Your task to perform on an android device: Go to sound settings Image 0: 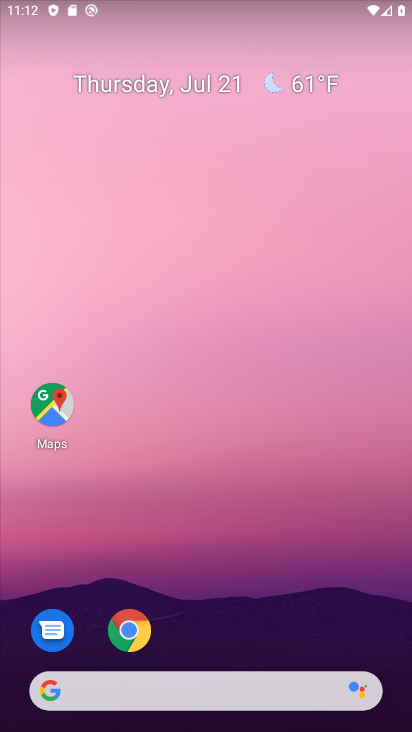
Step 0: drag from (216, 672) to (227, 207)
Your task to perform on an android device: Go to sound settings Image 1: 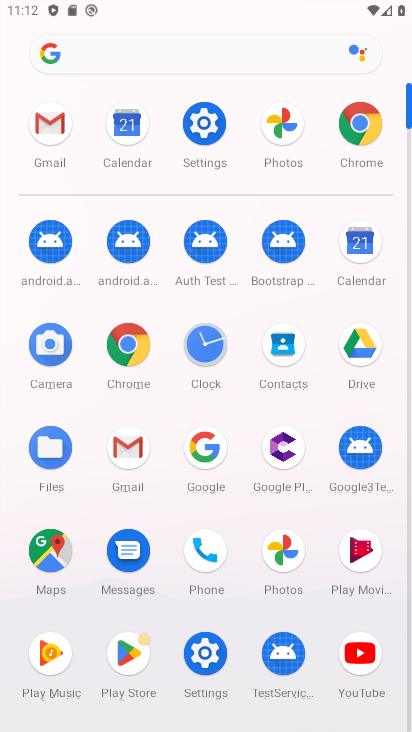
Step 1: click (210, 121)
Your task to perform on an android device: Go to sound settings Image 2: 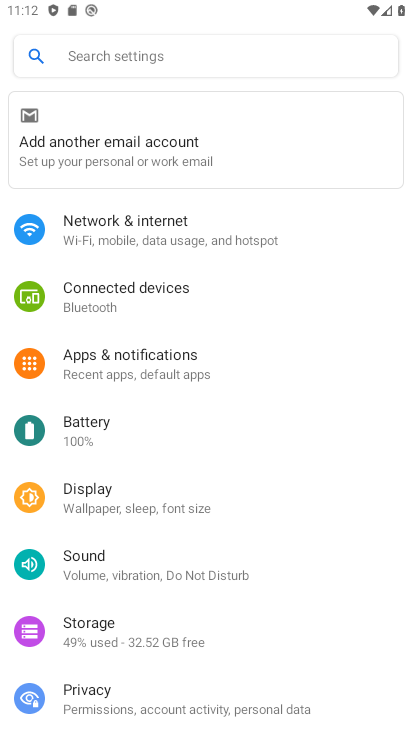
Step 2: drag from (125, 699) to (117, 335)
Your task to perform on an android device: Go to sound settings Image 3: 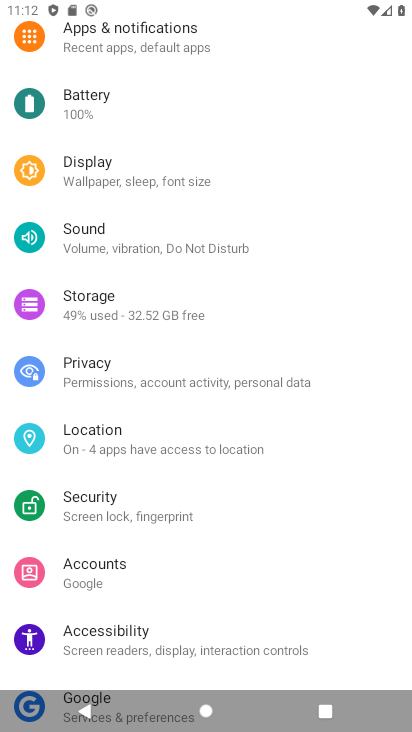
Step 3: click (89, 230)
Your task to perform on an android device: Go to sound settings Image 4: 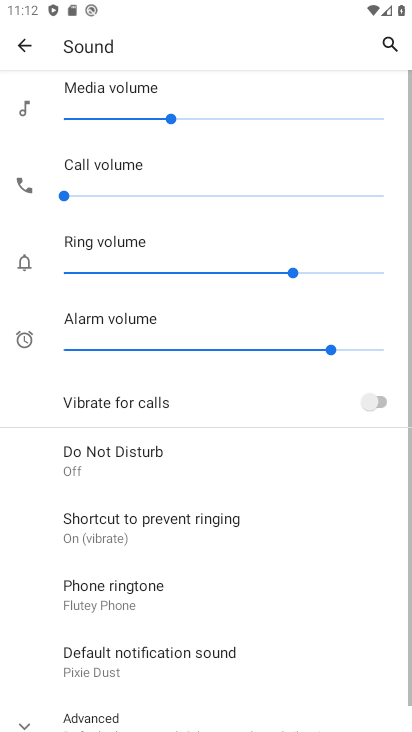
Step 4: task complete